Your task to perform on an android device: What's the weather today? Image 0: 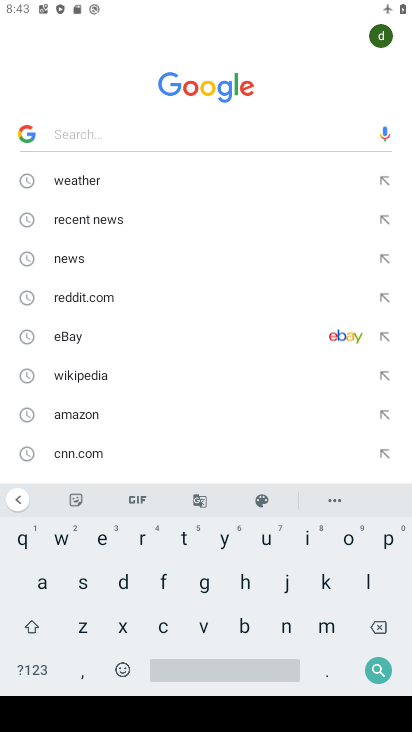
Step 0: press home button
Your task to perform on an android device: What's the weather today? Image 1: 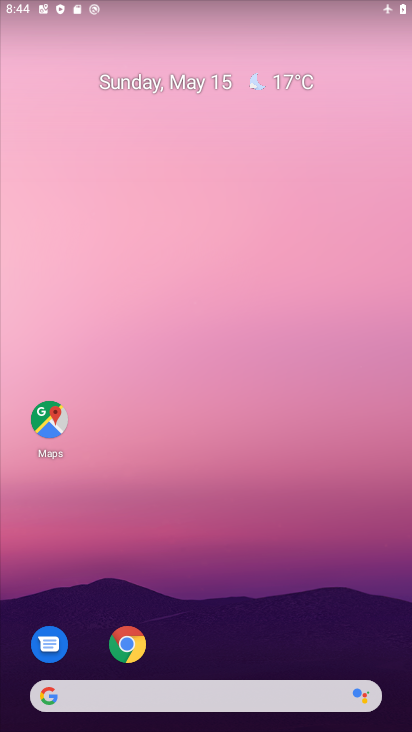
Step 1: drag from (214, 709) to (248, 195)
Your task to perform on an android device: What's the weather today? Image 2: 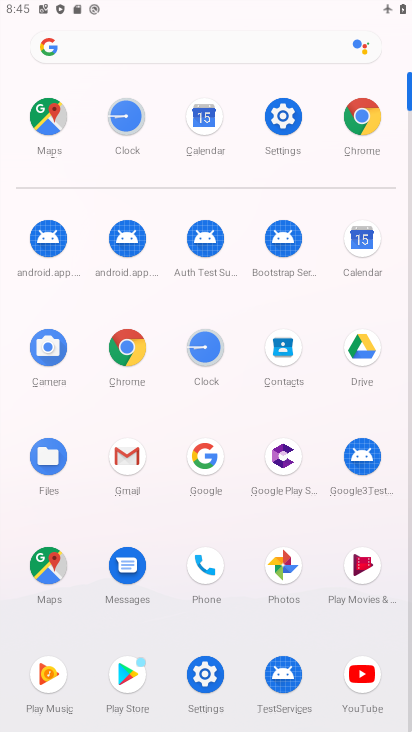
Step 2: click (163, 47)
Your task to perform on an android device: What's the weather today? Image 3: 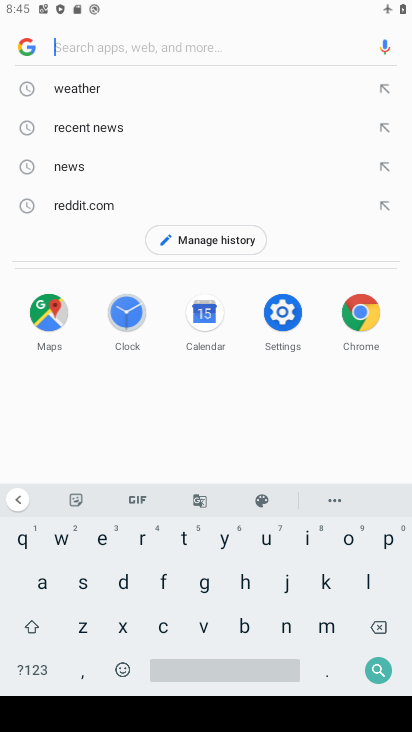
Step 3: click (92, 75)
Your task to perform on an android device: What's the weather today? Image 4: 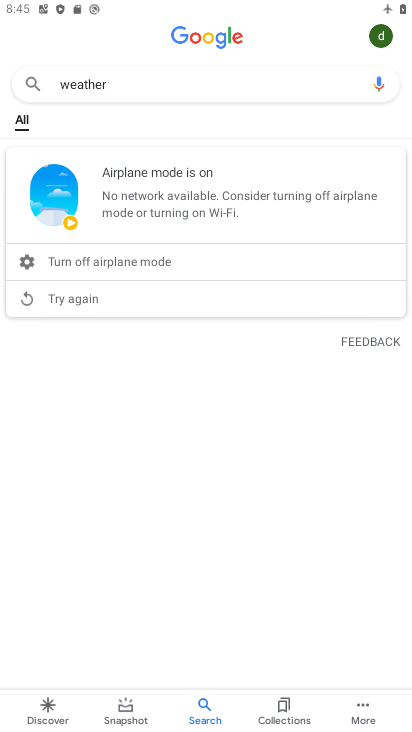
Step 4: task complete